Your task to perform on an android device: Go to privacy settings Image 0: 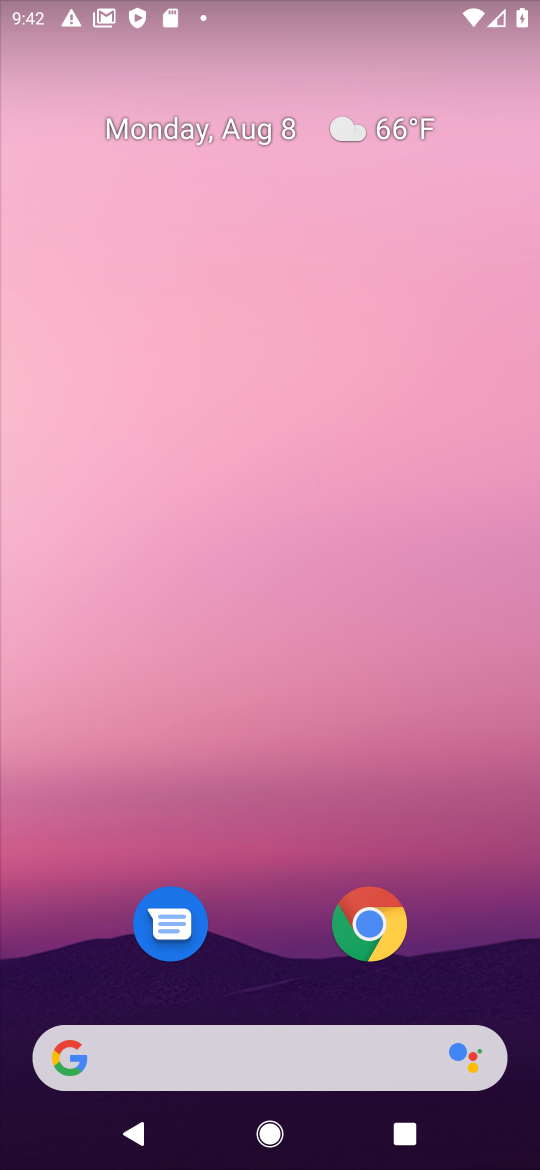
Step 0: drag from (286, 906) to (353, 1)
Your task to perform on an android device: Go to privacy settings Image 1: 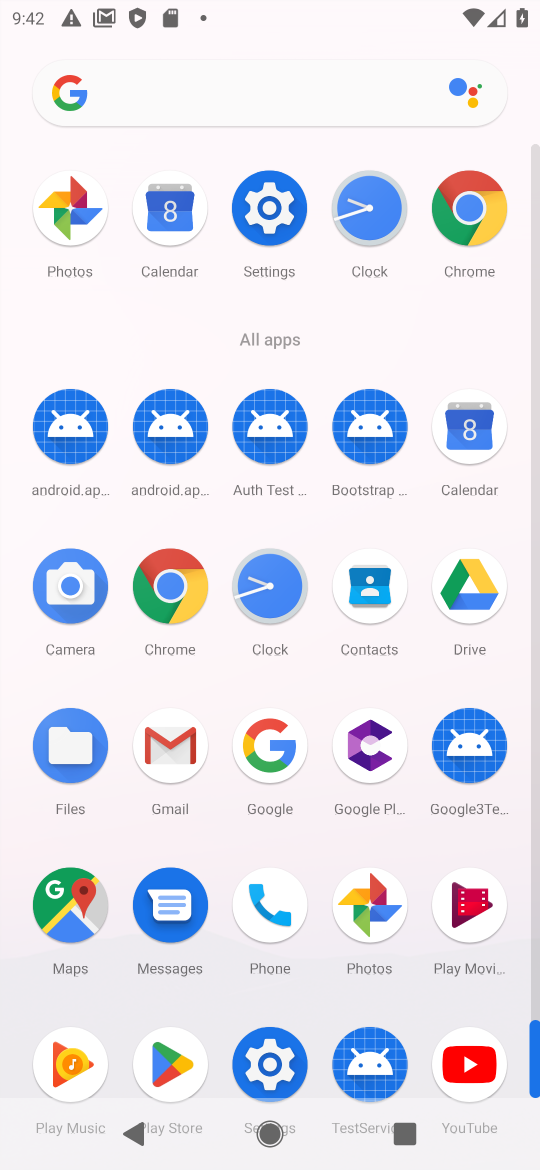
Step 1: click (251, 1053)
Your task to perform on an android device: Go to privacy settings Image 2: 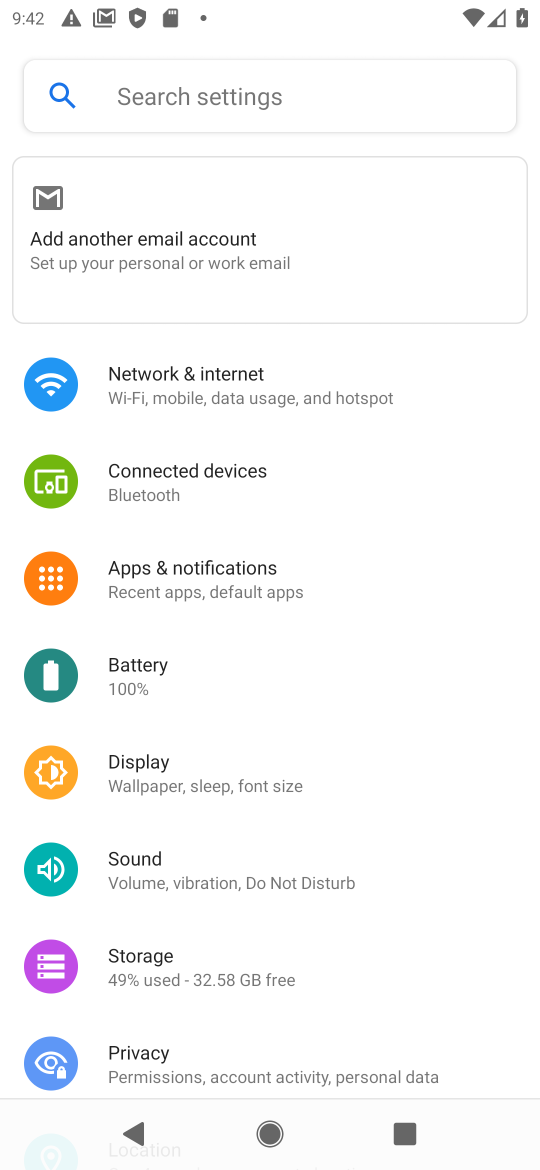
Step 2: drag from (241, 1039) to (298, 526)
Your task to perform on an android device: Go to privacy settings Image 3: 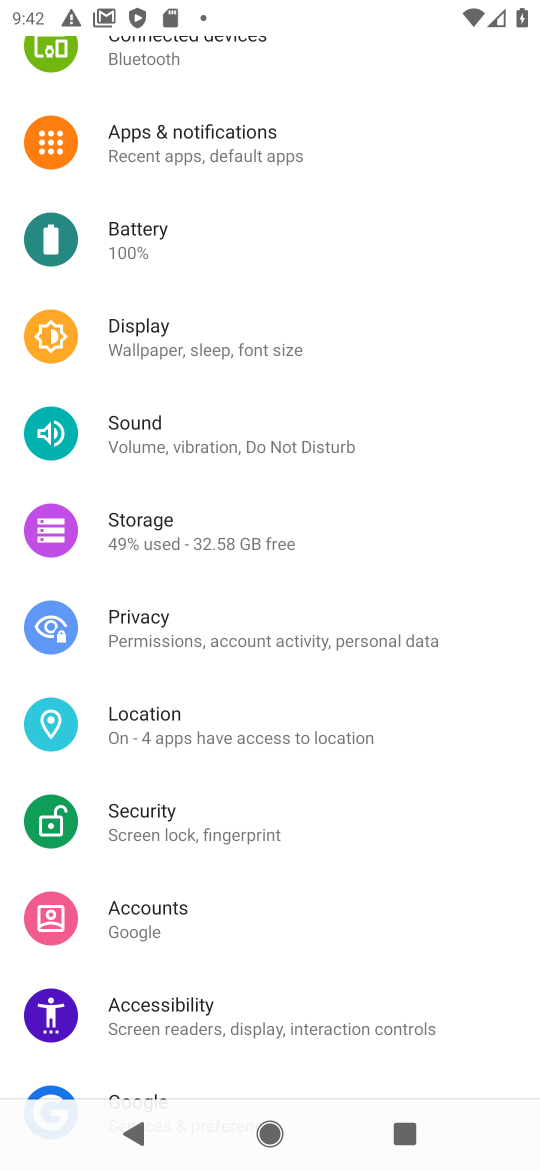
Step 3: click (168, 619)
Your task to perform on an android device: Go to privacy settings Image 4: 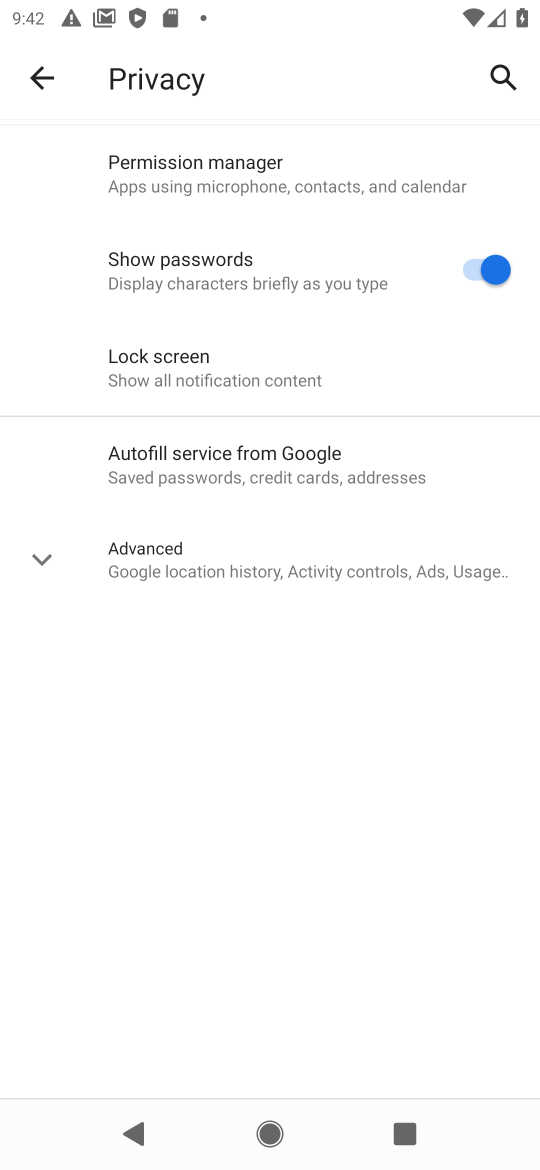
Step 4: task complete